Your task to perform on an android device: delete browsing data in the chrome app Image 0: 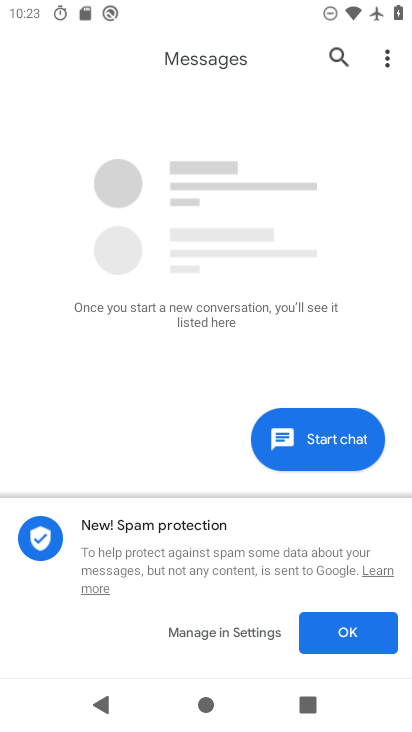
Step 0: press home button
Your task to perform on an android device: delete browsing data in the chrome app Image 1: 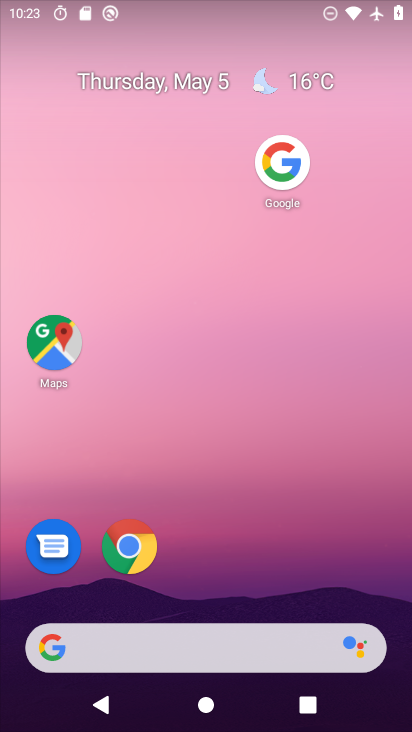
Step 1: drag from (161, 656) to (337, 75)
Your task to perform on an android device: delete browsing data in the chrome app Image 2: 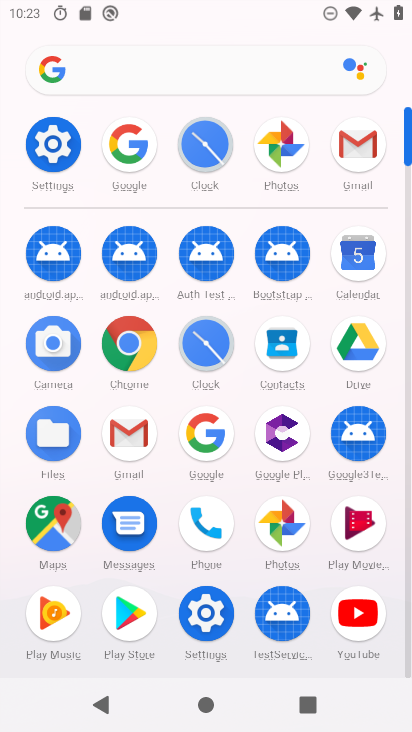
Step 2: click (135, 355)
Your task to perform on an android device: delete browsing data in the chrome app Image 3: 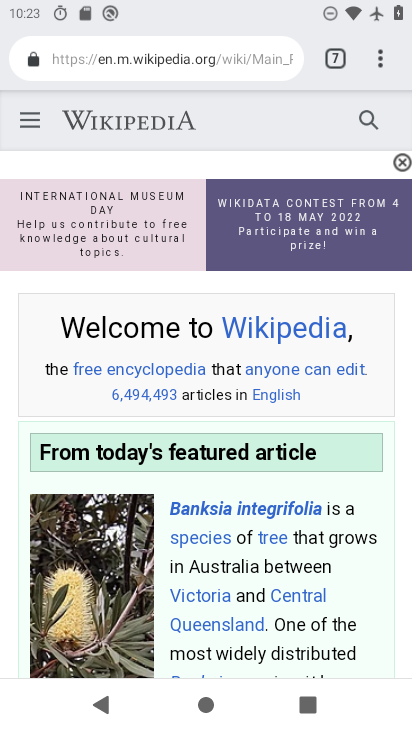
Step 3: drag from (380, 61) to (234, 569)
Your task to perform on an android device: delete browsing data in the chrome app Image 4: 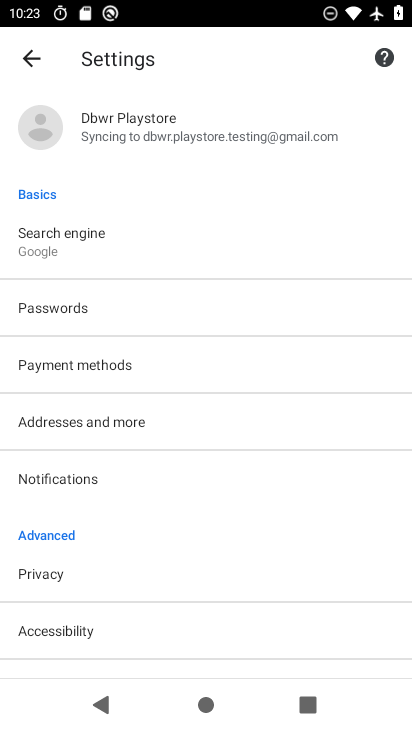
Step 4: click (46, 572)
Your task to perform on an android device: delete browsing data in the chrome app Image 5: 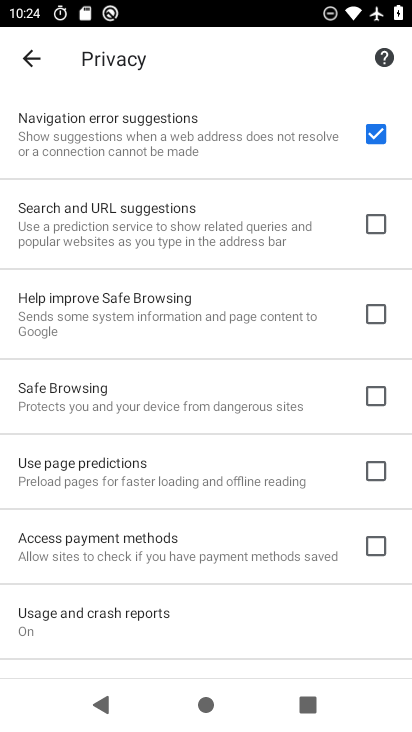
Step 5: drag from (156, 601) to (359, 80)
Your task to perform on an android device: delete browsing data in the chrome app Image 6: 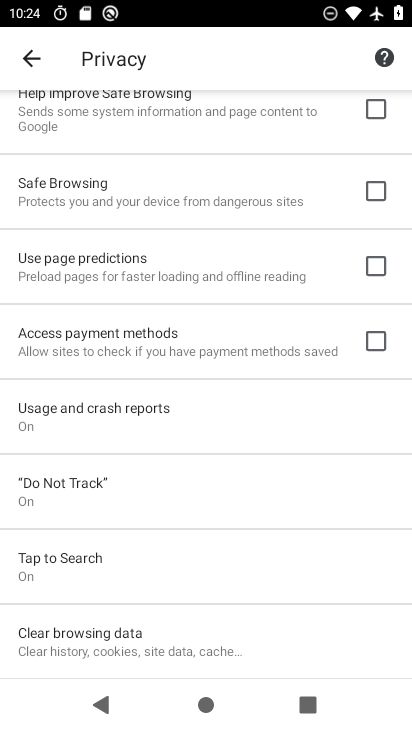
Step 6: click (126, 634)
Your task to perform on an android device: delete browsing data in the chrome app Image 7: 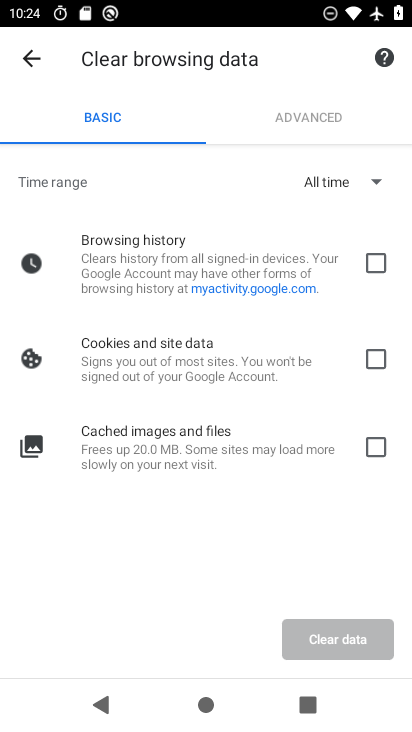
Step 7: click (375, 263)
Your task to perform on an android device: delete browsing data in the chrome app Image 8: 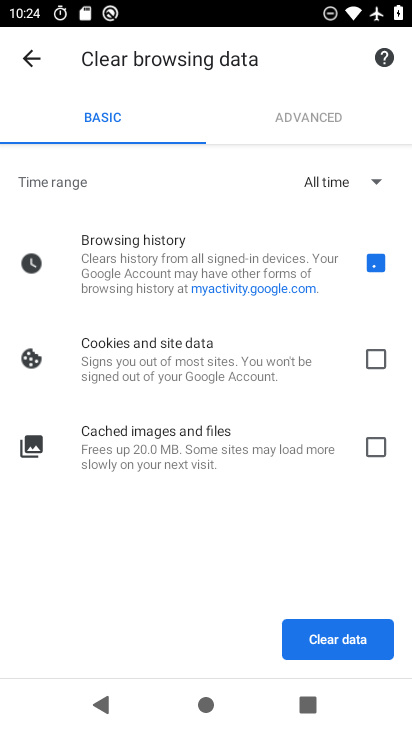
Step 8: click (380, 355)
Your task to perform on an android device: delete browsing data in the chrome app Image 9: 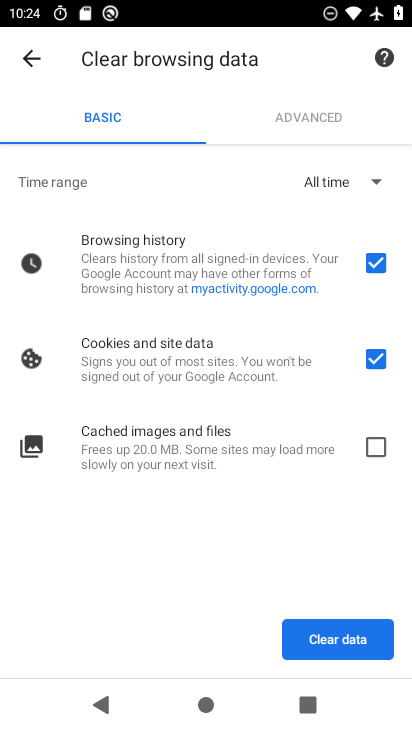
Step 9: click (374, 449)
Your task to perform on an android device: delete browsing data in the chrome app Image 10: 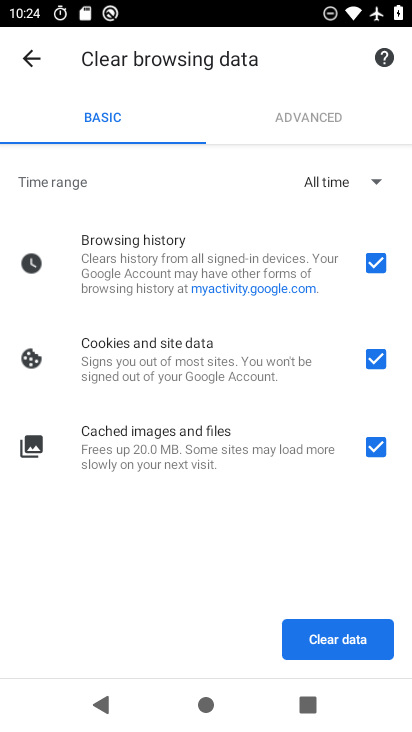
Step 10: click (337, 645)
Your task to perform on an android device: delete browsing data in the chrome app Image 11: 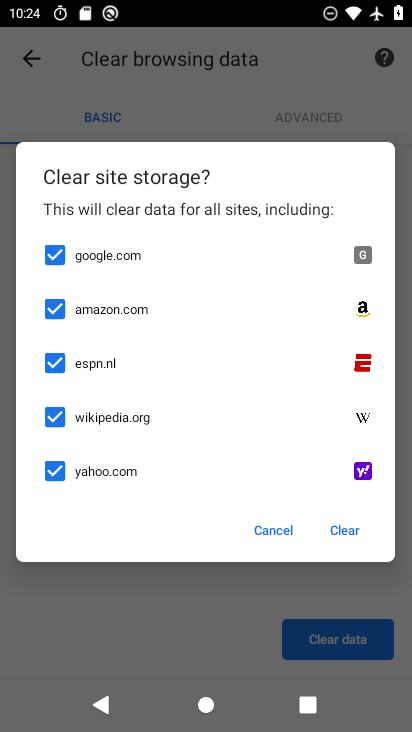
Step 11: click (354, 529)
Your task to perform on an android device: delete browsing data in the chrome app Image 12: 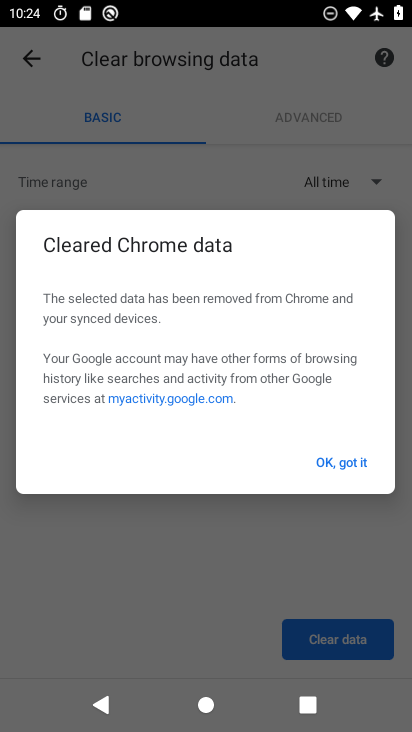
Step 12: click (359, 461)
Your task to perform on an android device: delete browsing data in the chrome app Image 13: 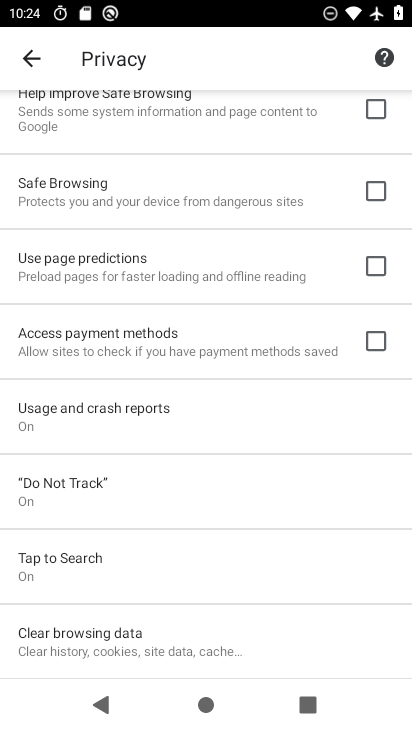
Step 13: task complete